Your task to perform on an android device: create a new album in the google photos Image 0: 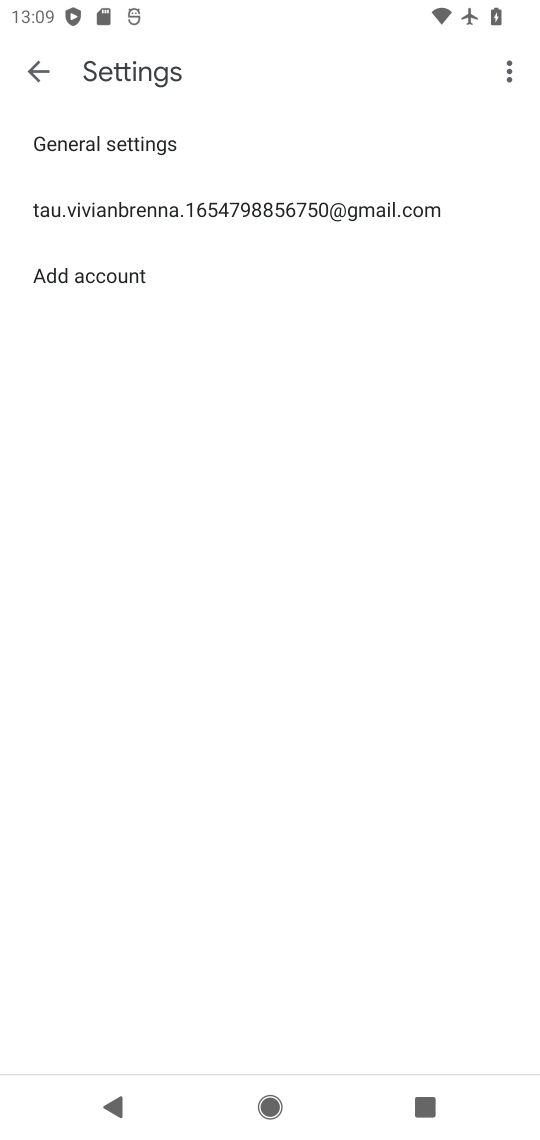
Step 0: press home button
Your task to perform on an android device: create a new album in the google photos Image 1: 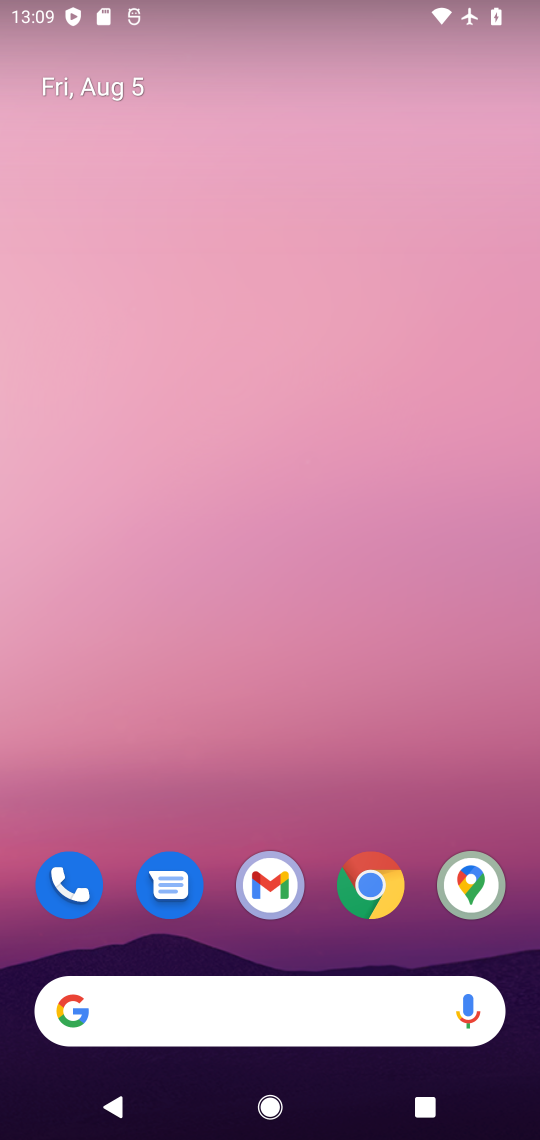
Step 1: drag from (250, 840) to (261, 144)
Your task to perform on an android device: create a new album in the google photos Image 2: 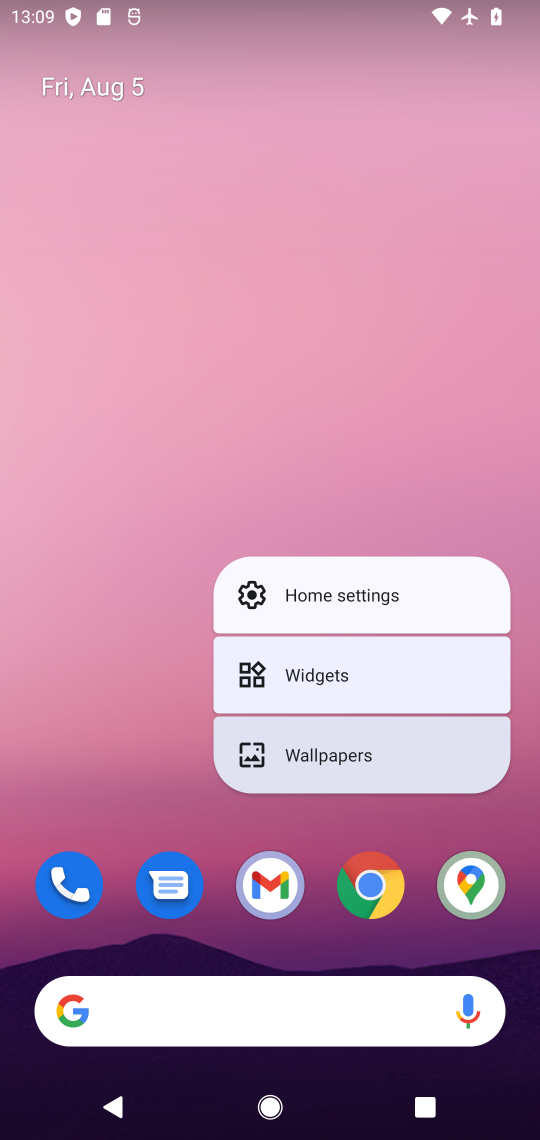
Step 2: drag from (224, 931) to (223, 27)
Your task to perform on an android device: create a new album in the google photos Image 3: 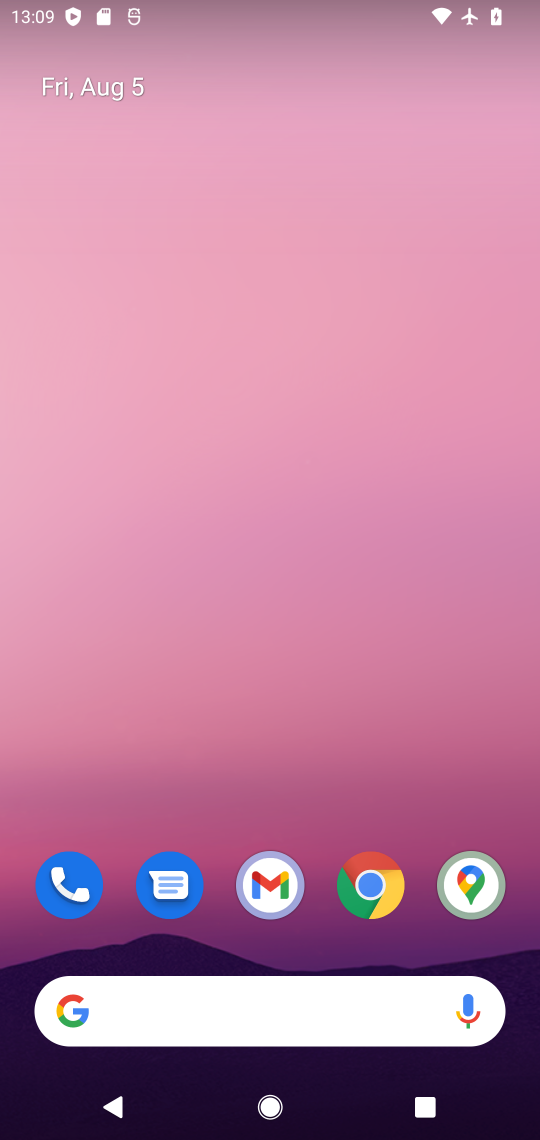
Step 3: drag from (206, 929) to (286, 13)
Your task to perform on an android device: create a new album in the google photos Image 4: 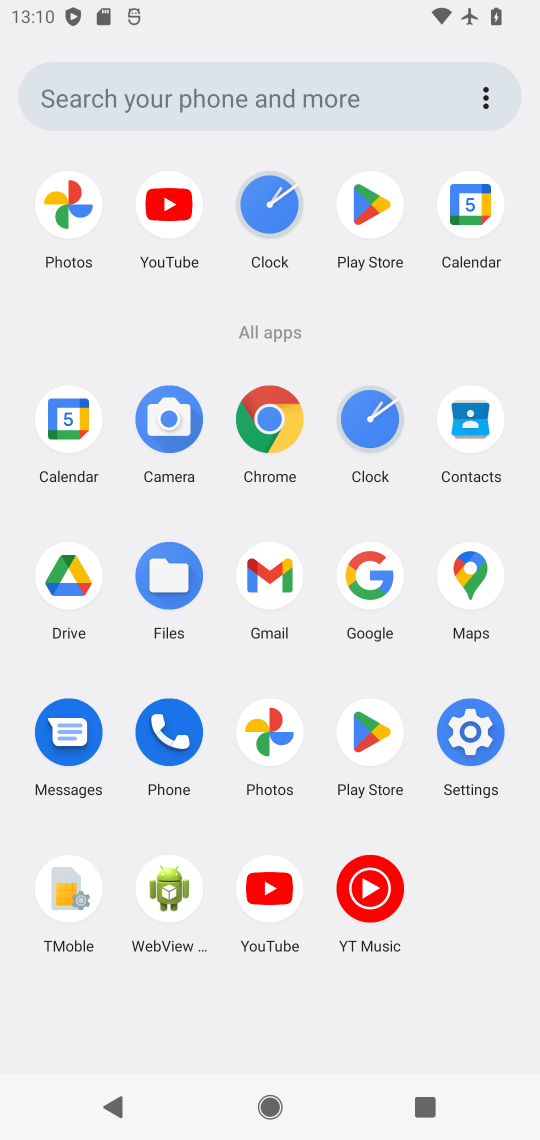
Step 4: click (265, 733)
Your task to perform on an android device: create a new album in the google photos Image 5: 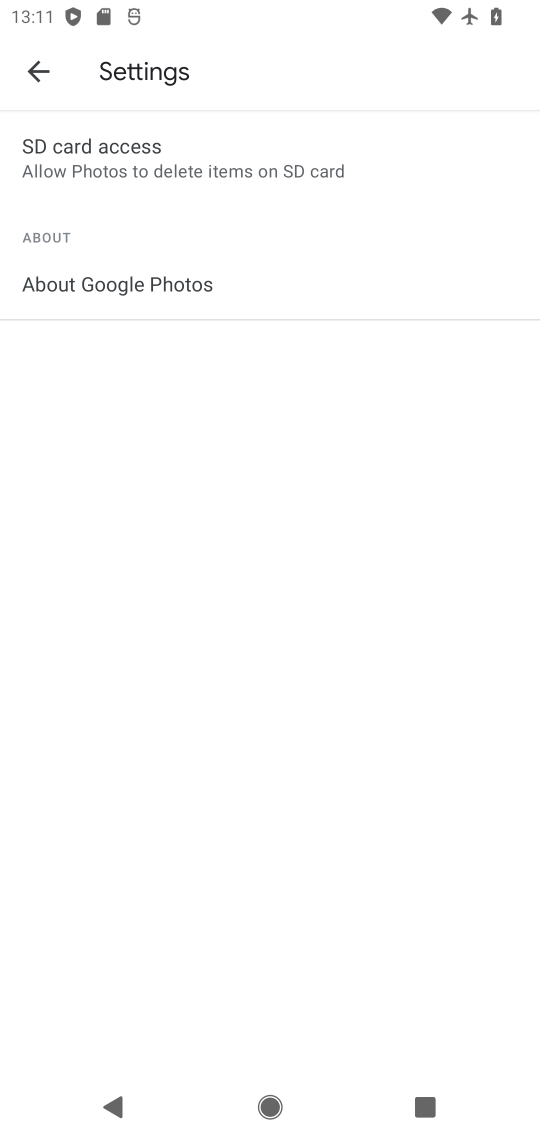
Step 5: click (43, 74)
Your task to perform on an android device: create a new album in the google photos Image 6: 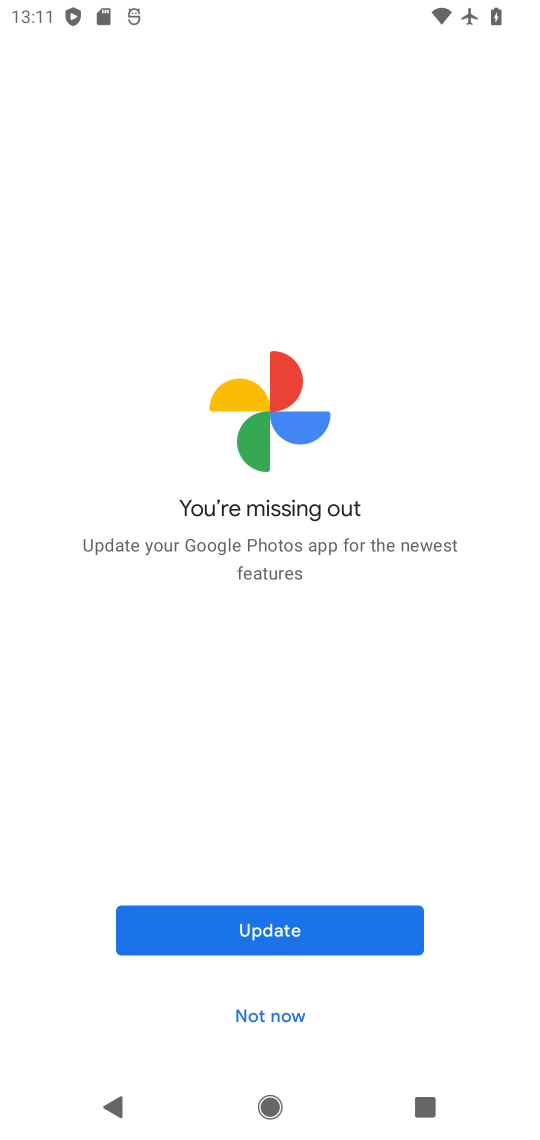
Step 6: click (258, 939)
Your task to perform on an android device: create a new album in the google photos Image 7: 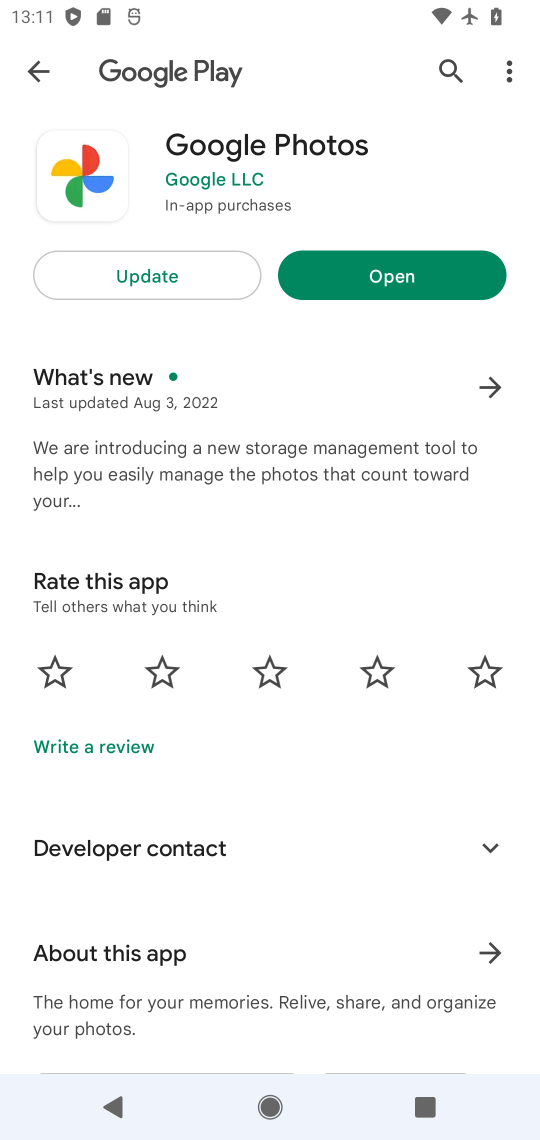
Step 7: click (106, 272)
Your task to perform on an android device: create a new album in the google photos Image 8: 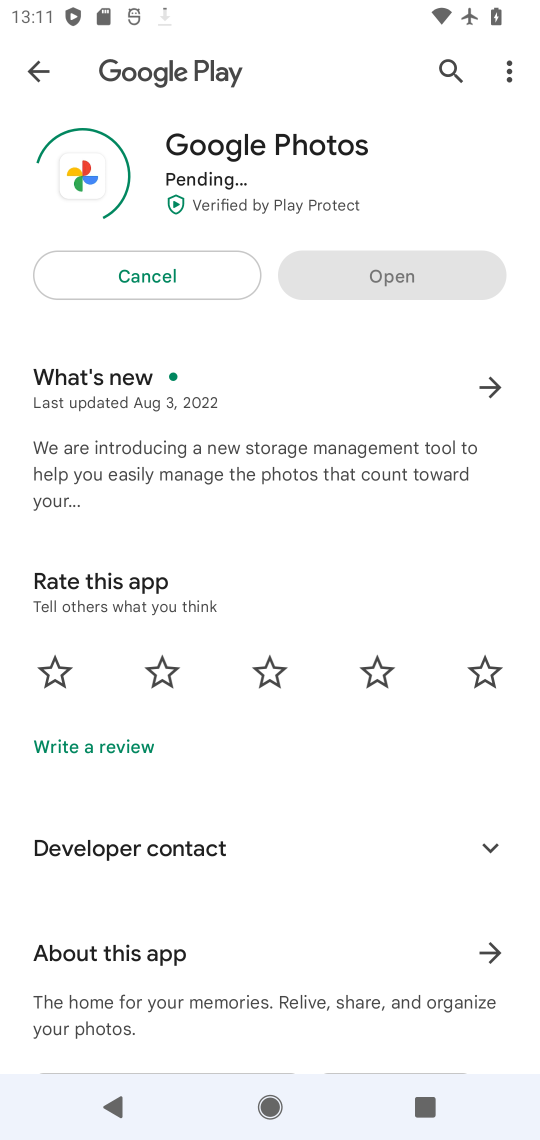
Step 8: click (106, 272)
Your task to perform on an android device: create a new album in the google photos Image 9: 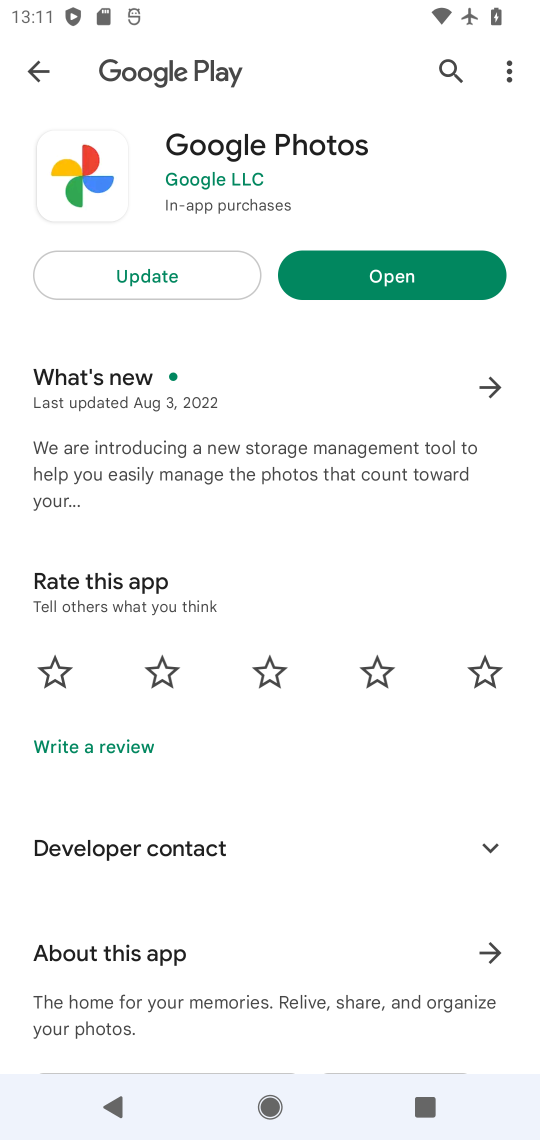
Step 9: click (155, 260)
Your task to perform on an android device: create a new album in the google photos Image 10: 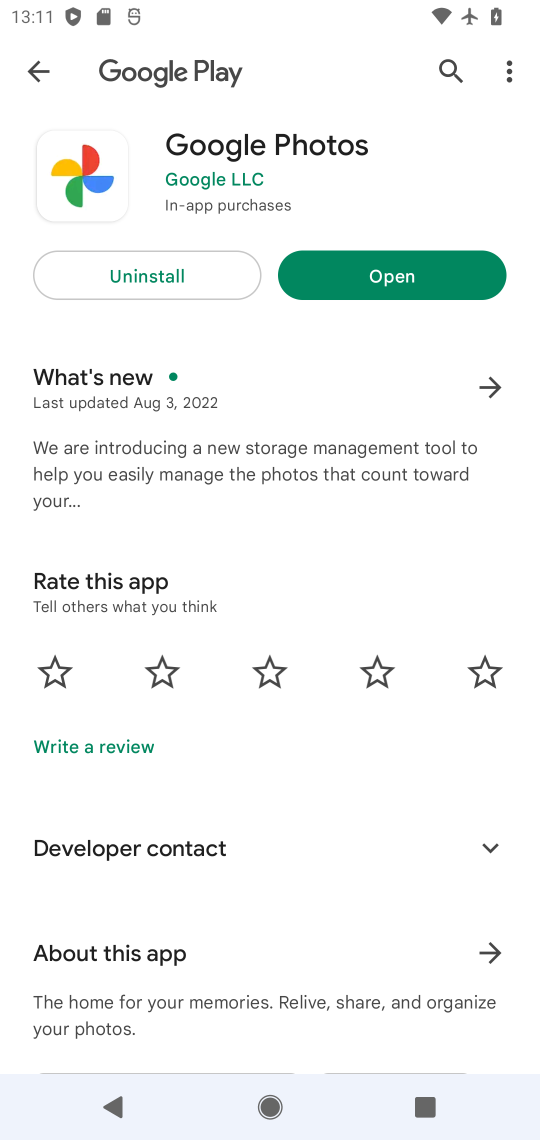
Step 10: click (399, 258)
Your task to perform on an android device: create a new album in the google photos Image 11: 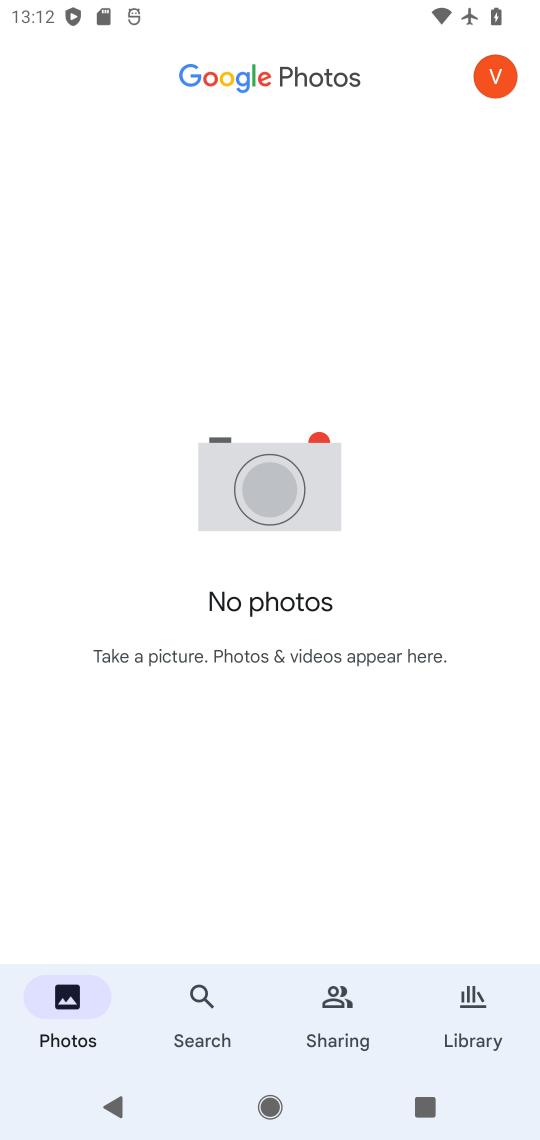
Step 11: click (456, 1025)
Your task to perform on an android device: create a new album in the google photos Image 12: 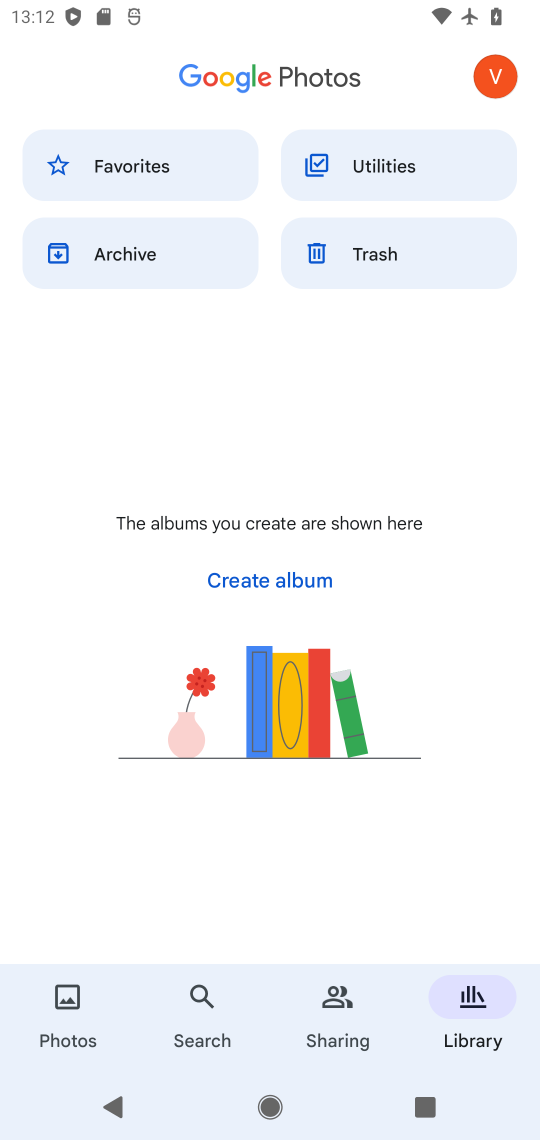
Step 12: click (264, 581)
Your task to perform on an android device: create a new album in the google photos Image 13: 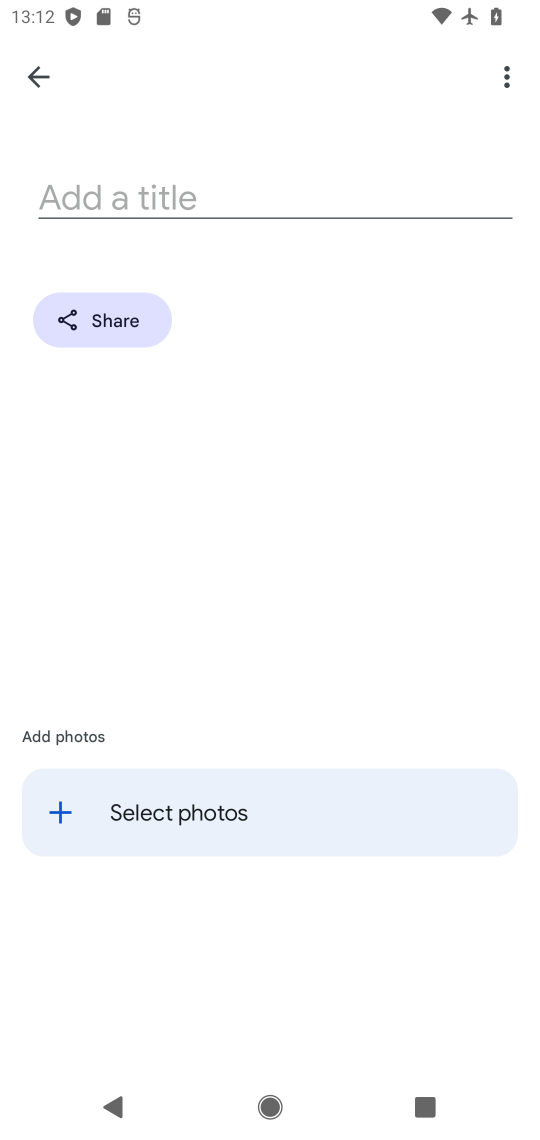
Step 13: type "nazar"
Your task to perform on an android device: create a new album in the google photos Image 14: 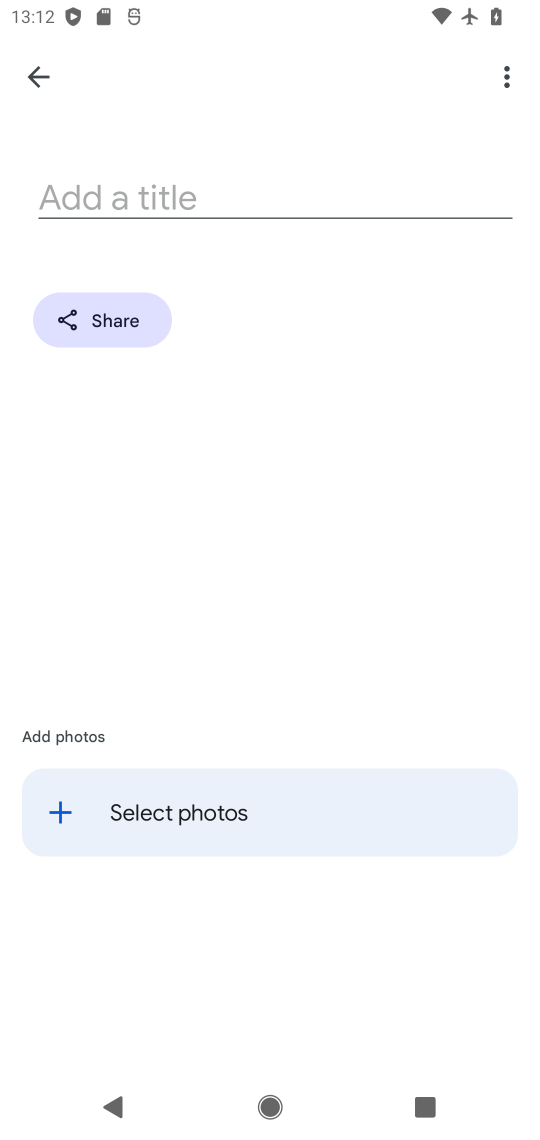
Step 14: click (302, 185)
Your task to perform on an android device: create a new album in the google photos Image 15: 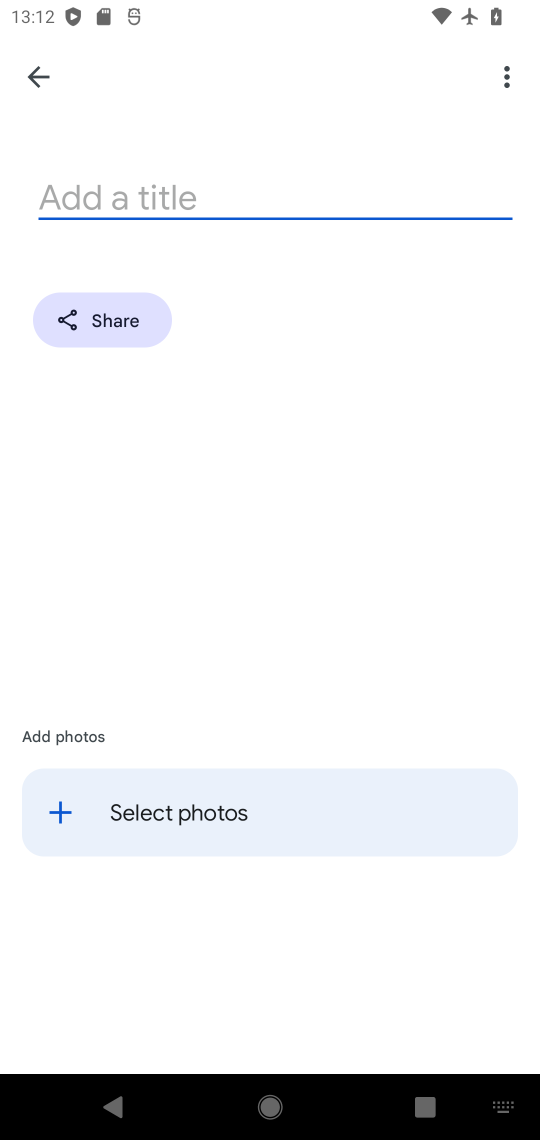
Step 15: click (170, 804)
Your task to perform on an android device: create a new album in the google photos Image 16: 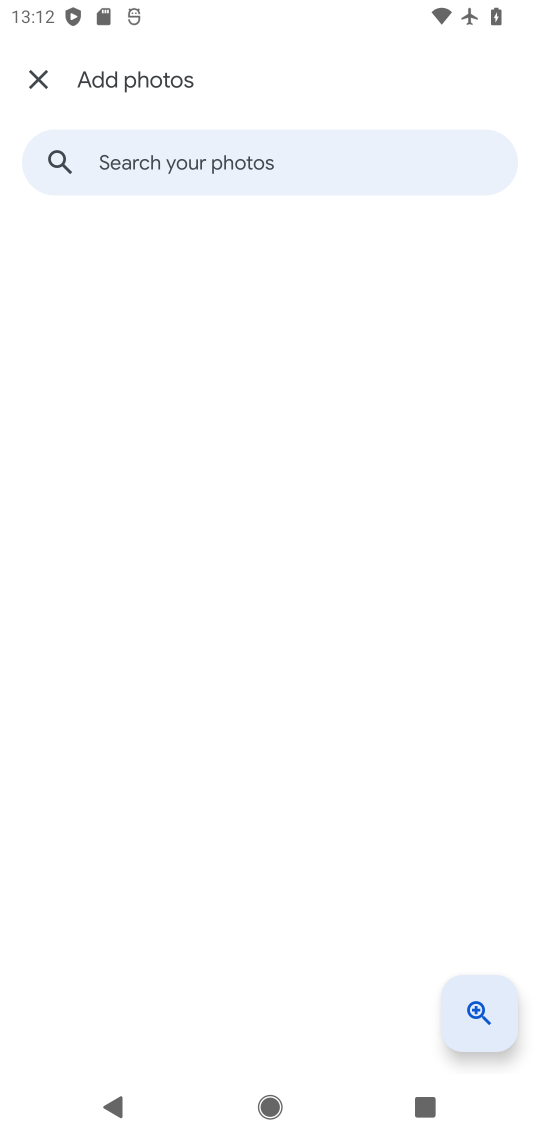
Step 16: task complete